Your task to perform on an android device: Search for top rated burger restaurants on Google Maps Image 0: 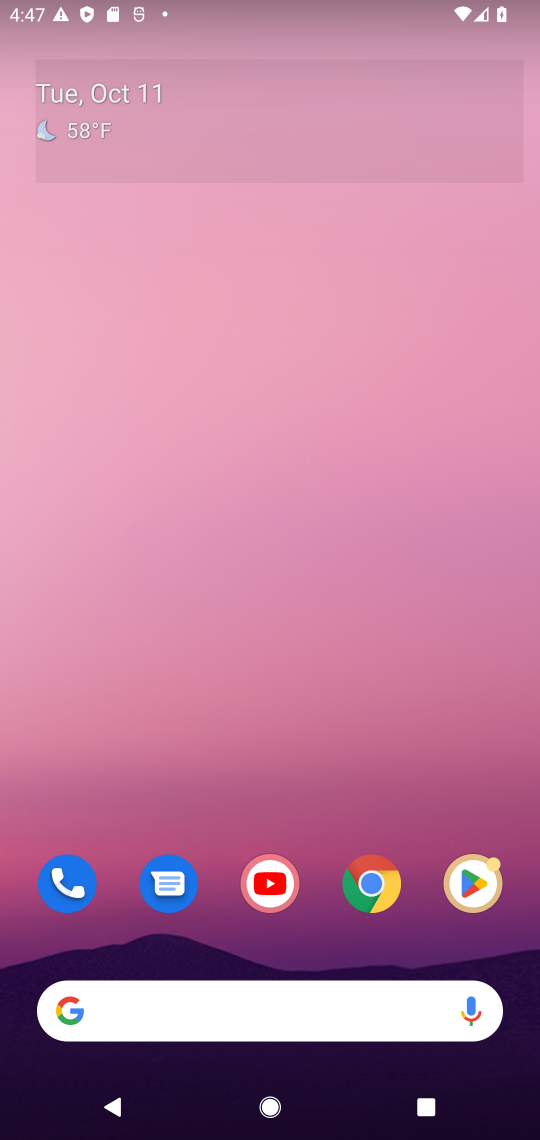
Step 0: drag from (313, 970) to (389, 70)
Your task to perform on an android device: Search for top rated burger restaurants on Google Maps Image 1: 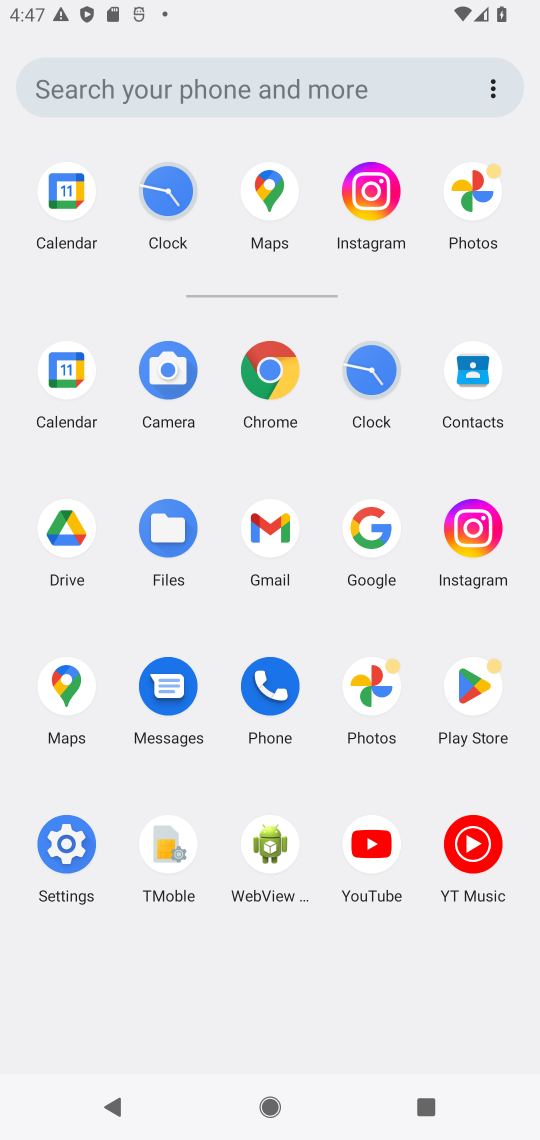
Step 1: click (273, 190)
Your task to perform on an android device: Search for top rated burger restaurants on Google Maps Image 2: 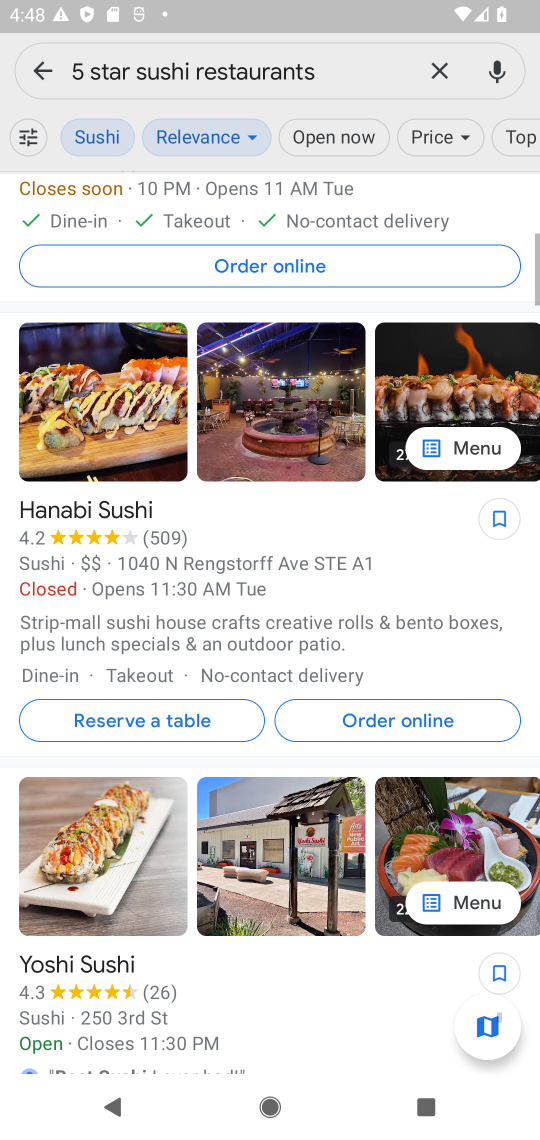
Step 2: click (434, 67)
Your task to perform on an android device: Search for top rated burger restaurants on Google Maps Image 3: 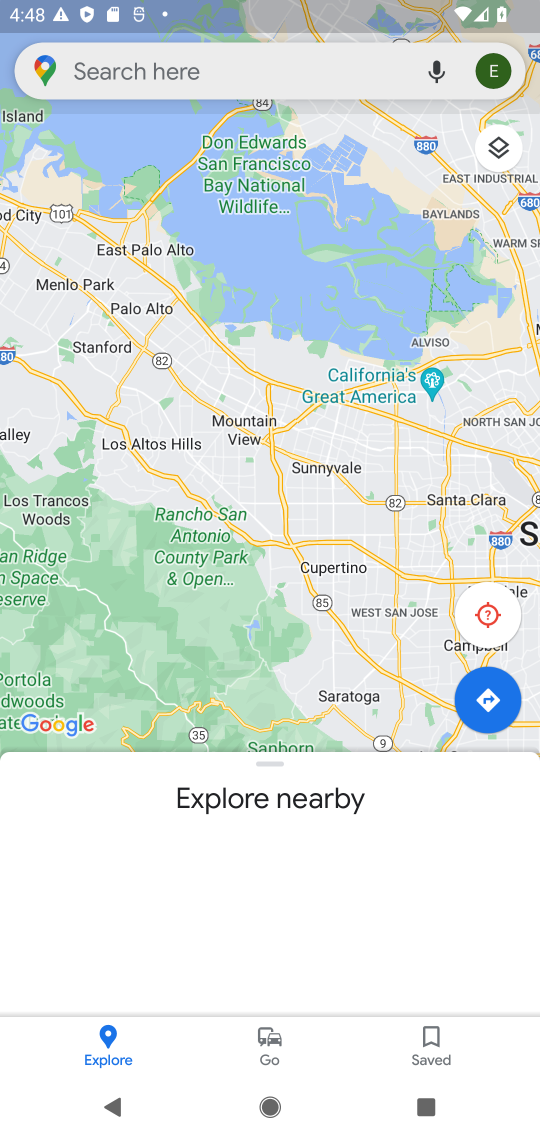
Step 3: click (244, 66)
Your task to perform on an android device: Search for top rated burger restaurants on Google Maps Image 4: 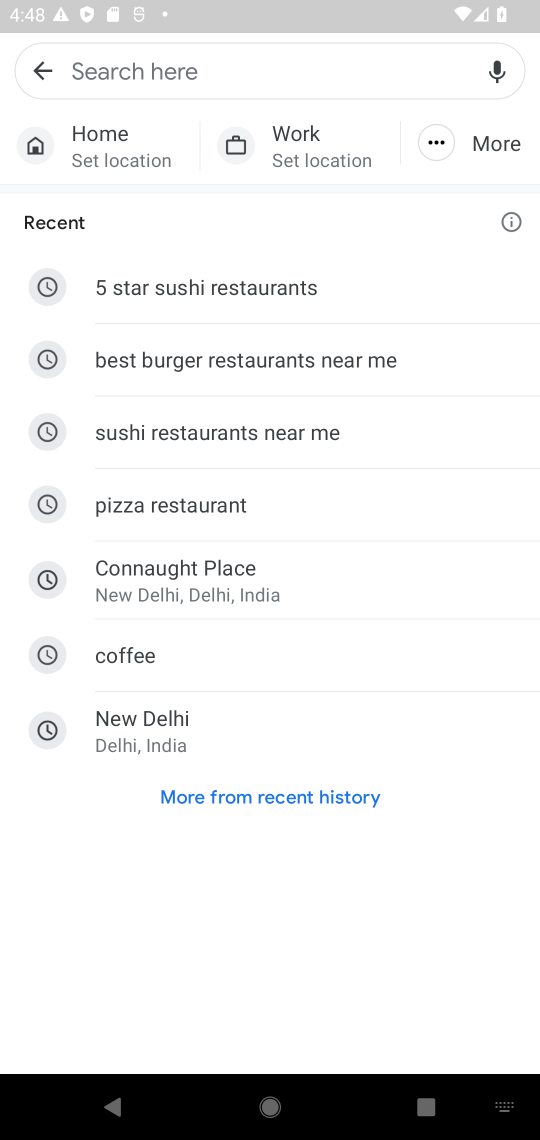
Step 4: type "top rated burger restaurants"
Your task to perform on an android device: Search for top rated burger restaurants on Google Maps Image 5: 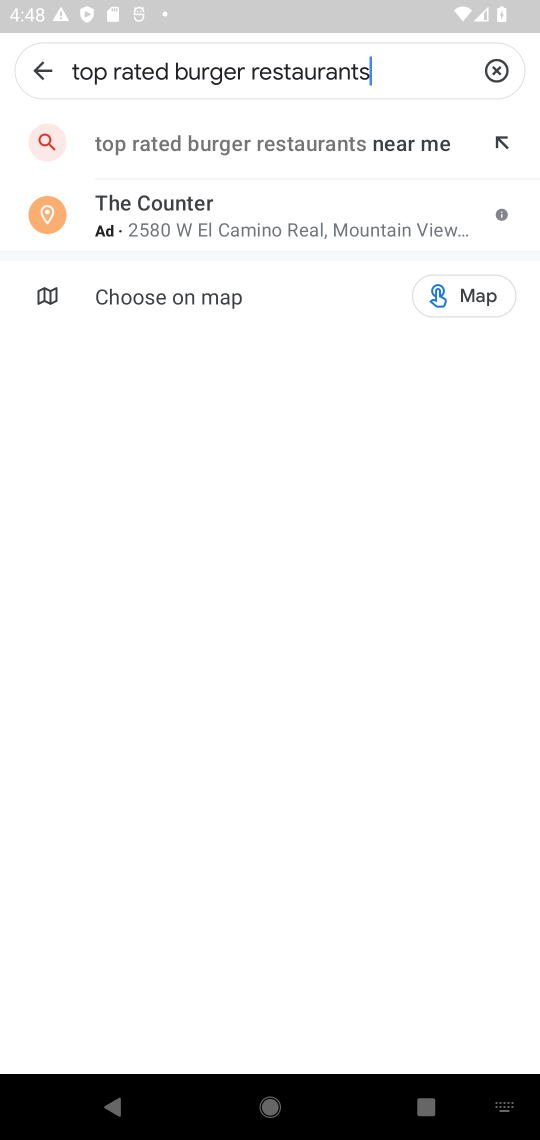
Step 5: press enter
Your task to perform on an android device: Search for top rated burger restaurants on Google Maps Image 6: 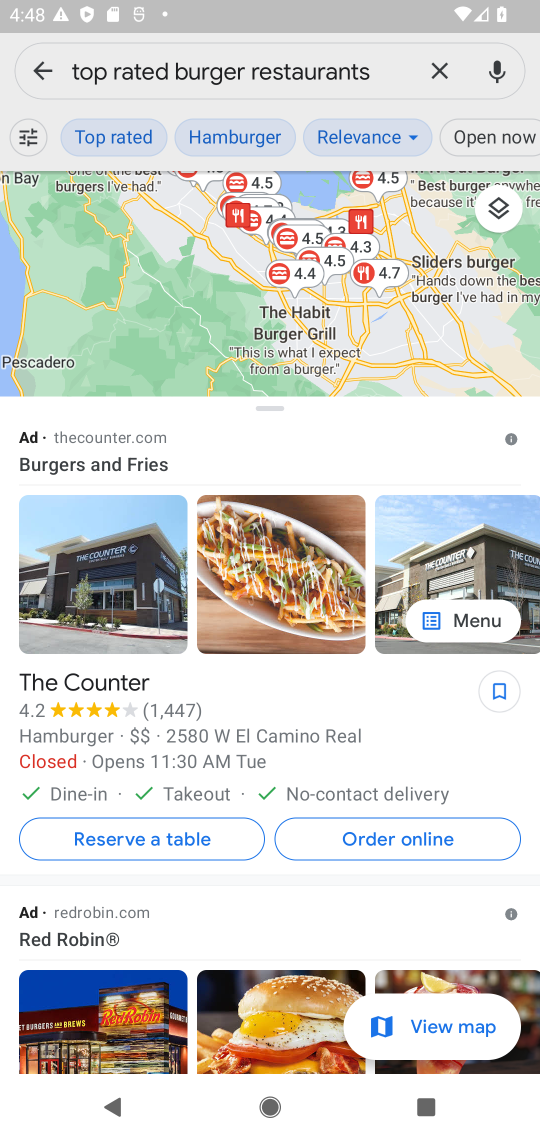
Step 6: task complete